Your task to perform on an android device: add a contact in the contacts app Image 0: 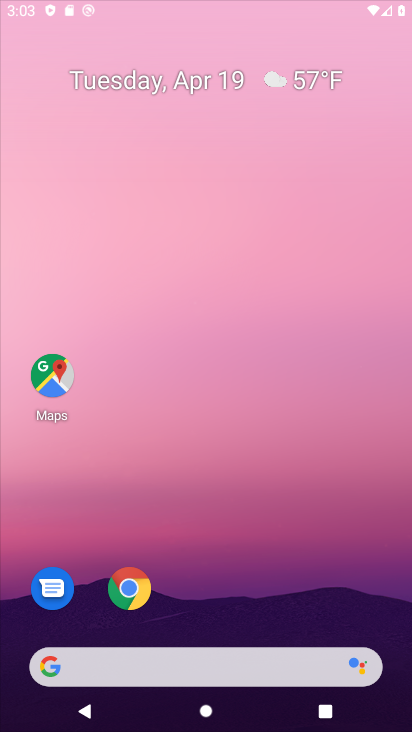
Step 0: drag from (181, 501) to (228, 106)
Your task to perform on an android device: add a contact in the contacts app Image 1: 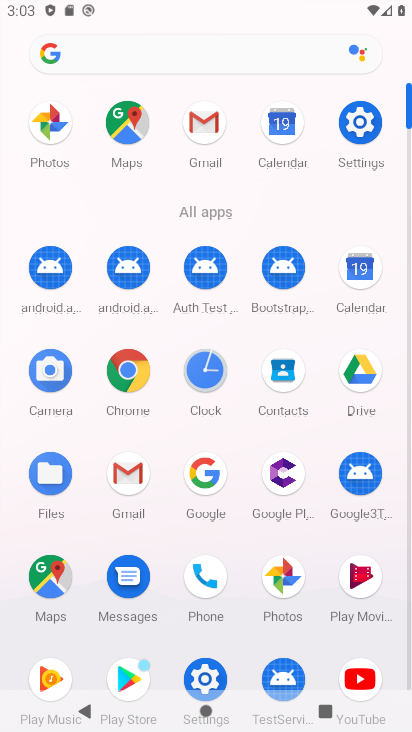
Step 1: click (283, 372)
Your task to perform on an android device: add a contact in the contacts app Image 2: 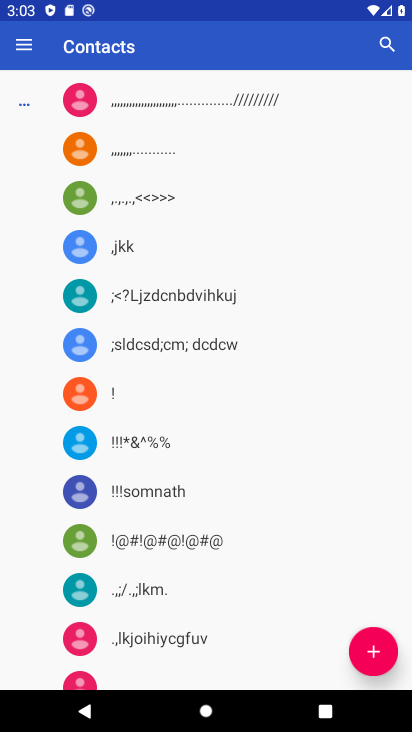
Step 2: click (392, 653)
Your task to perform on an android device: add a contact in the contacts app Image 3: 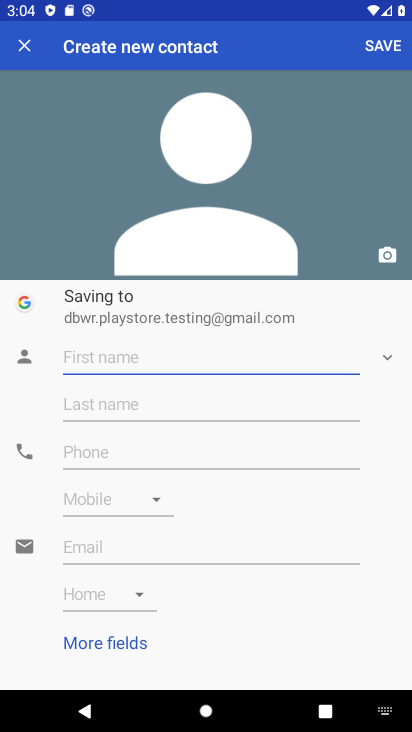
Step 3: type "eric crampton "
Your task to perform on an android device: add a contact in the contacts app Image 4: 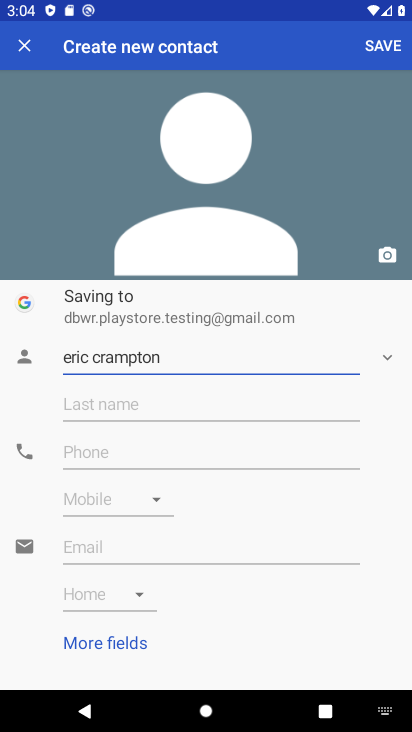
Step 4: click (95, 454)
Your task to perform on an android device: add a contact in the contacts app Image 5: 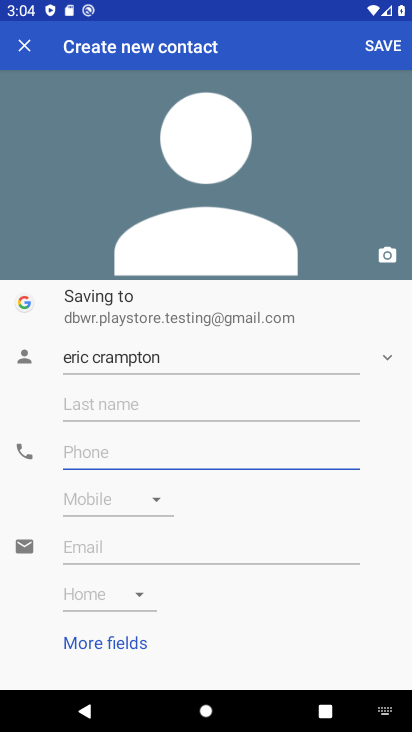
Step 5: type "28223232823"
Your task to perform on an android device: add a contact in the contacts app Image 6: 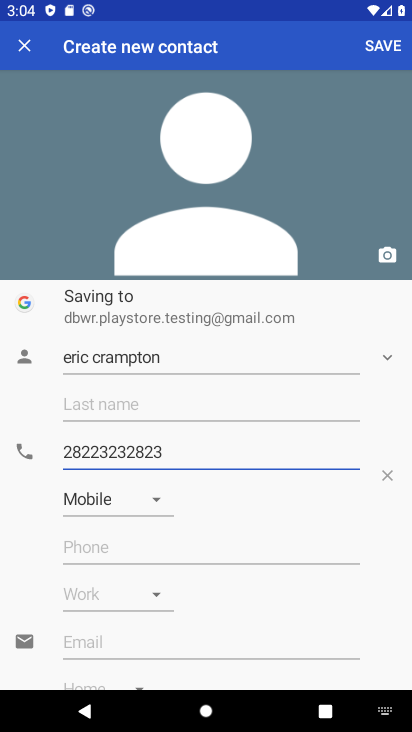
Step 6: drag from (158, 452) to (24, 447)
Your task to perform on an android device: add a contact in the contacts app Image 7: 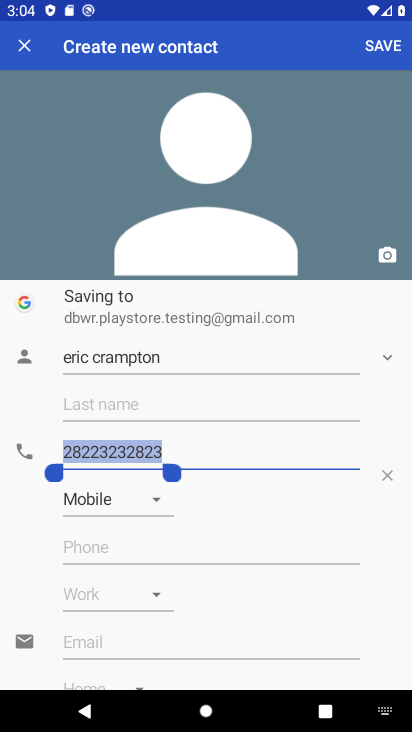
Step 7: click (380, 44)
Your task to perform on an android device: add a contact in the contacts app Image 8: 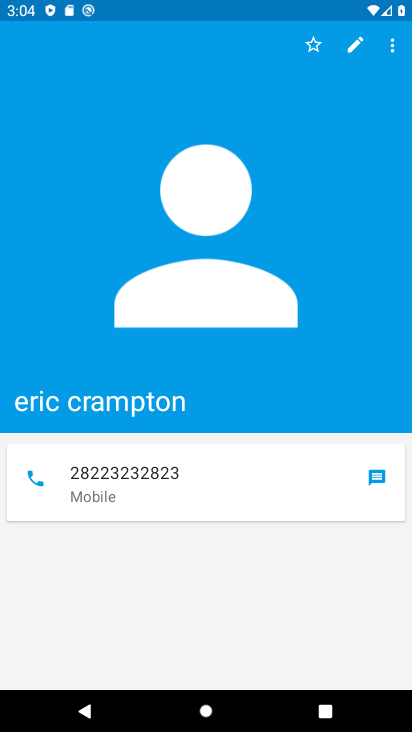
Step 8: task complete